Your task to perform on an android device: Open calendar and show me the third week of next month Image 0: 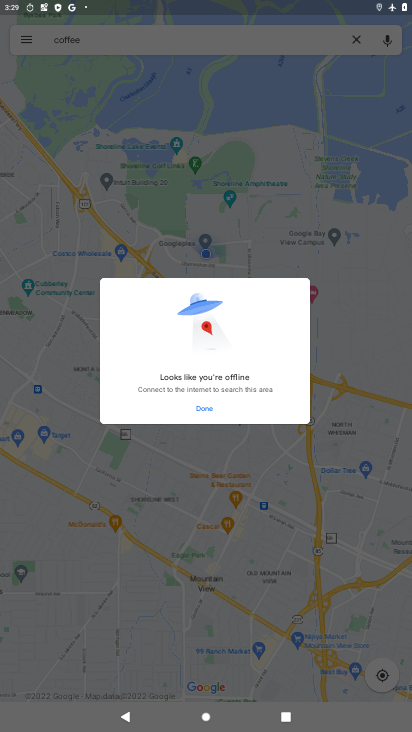
Step 0: press home button
Your task to perform on an android device: Open calendar and show me the third week of next month Image 1: 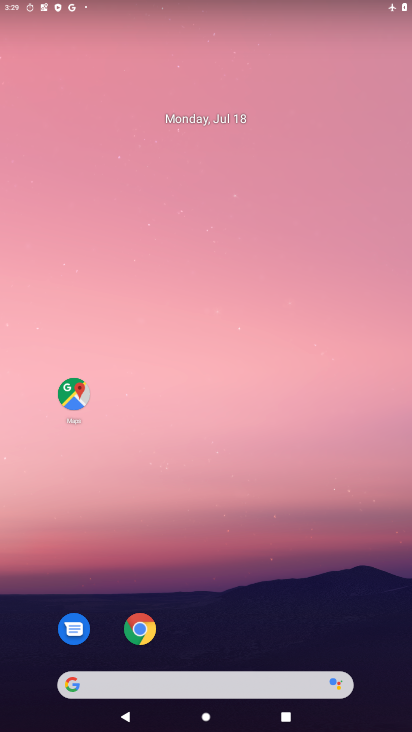
Step 1: drag from (197, 655) to (185, 89)
Your task to perform on an android device: Open calendar and show me the third week of next month Image 2: 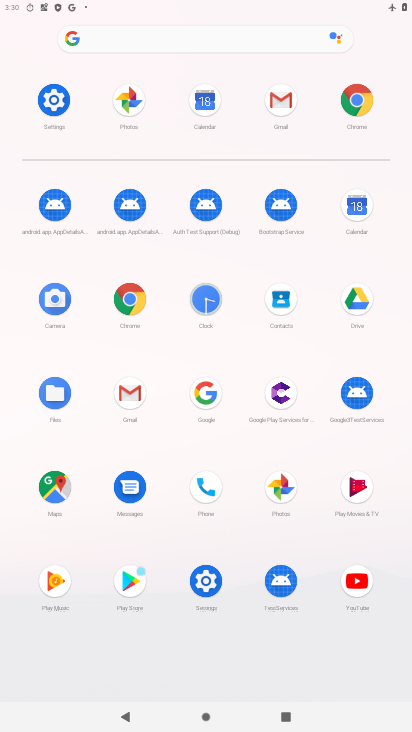
Step 2: click (352, 207)
Your task to perform on an android device: Open calendar and show me the third week of next month Image 3: 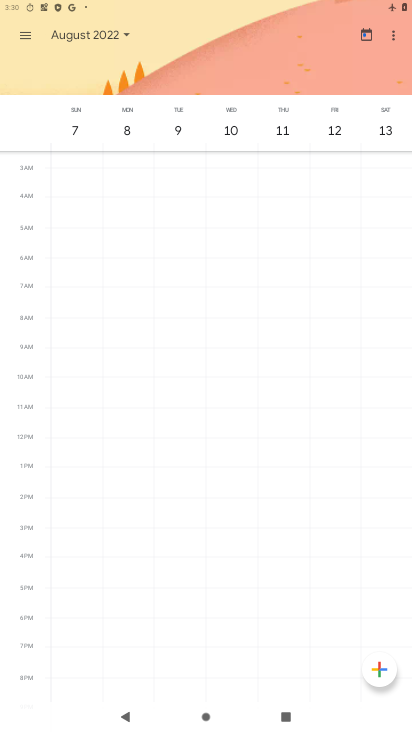
Step 3: task complete